Your task to perform on an android device: see sites visited before in the chrome app Image 0: 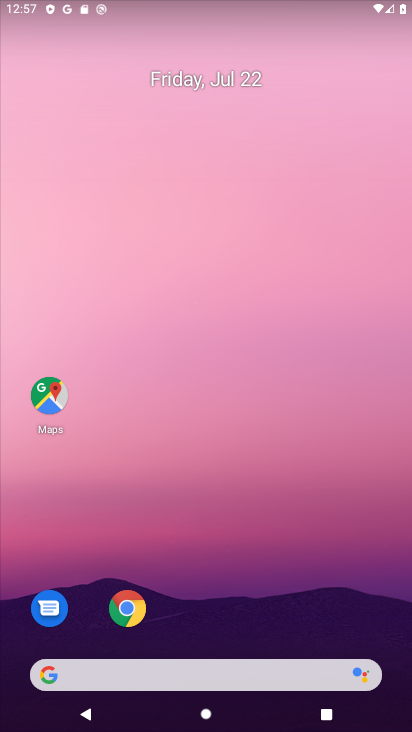
Step 0: drag from (295, 587) to (266, 4)
Your task to perform on an android device: see sites visited before in the chrome app Image 1: 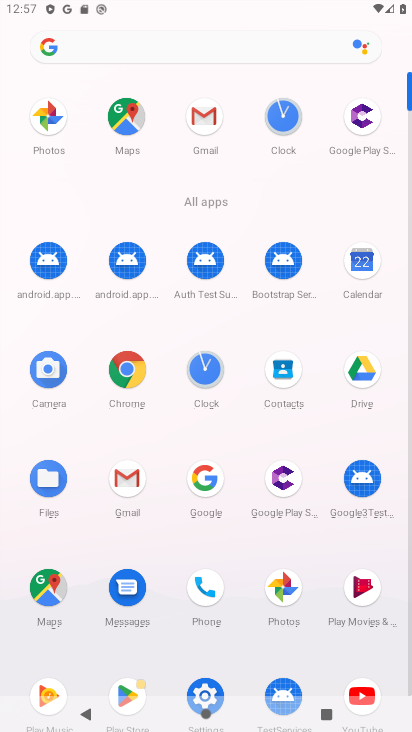
Step 1: click (212, 684)
Your task to perform on an android device: see sites visited before in the chrome app Image 2: 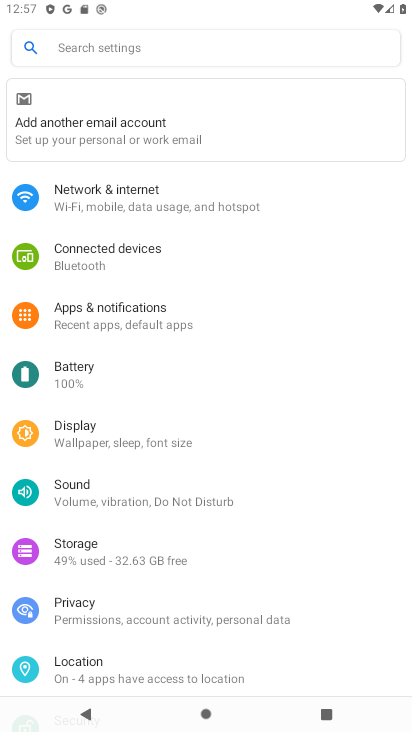
Step 2: task complete